Your task to perform on an android device: Go to wifi settings Image 0: 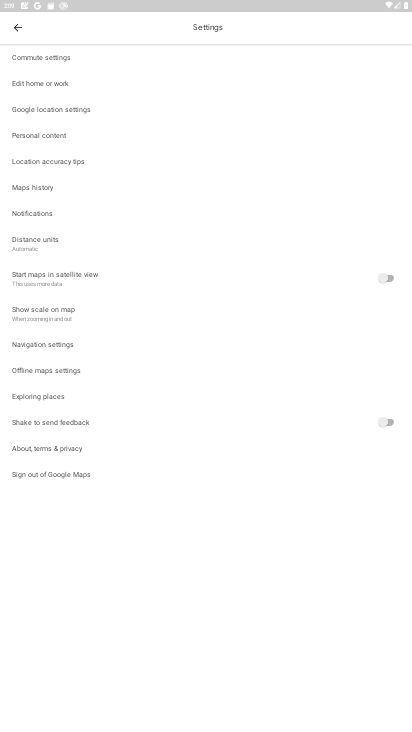
Step 0: press home button
Your task to perform on an android device: Go to wifi settings Image 1: 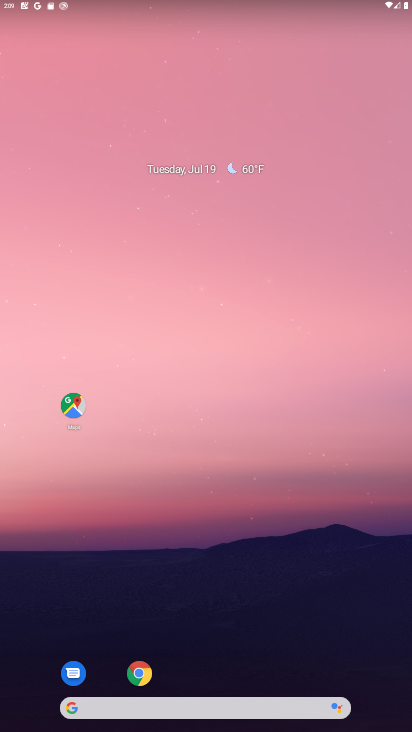
Step 1: drag from (150, 726) to (83, 127)
Your task to perform on an android device: Go to wifi settings Image 2: 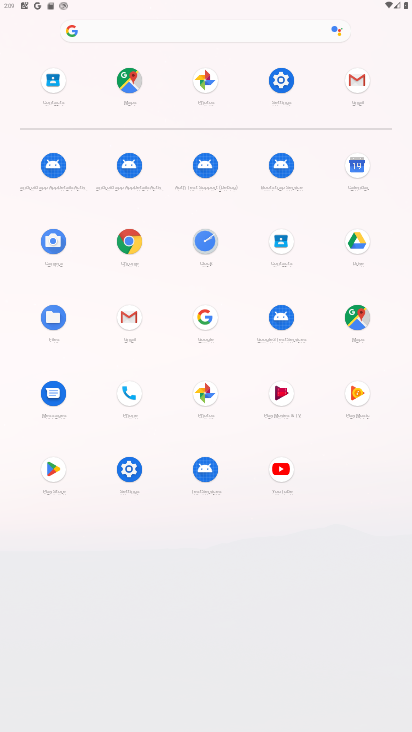
Step 2: click (279, 80)
Your task to perform on an android device: Go to wifi settings Image 3: 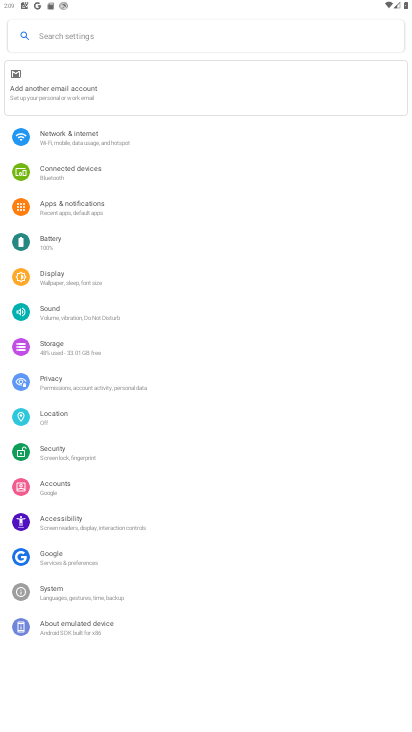
Step 3: click (88, 140)
Your task to perform on an android device: Go to wifi settings Image 4: 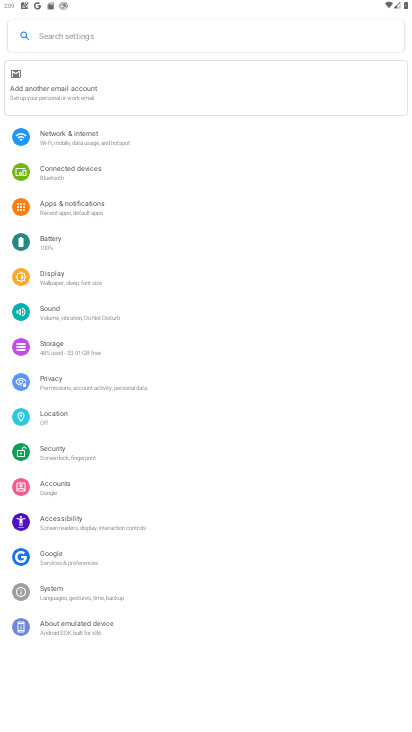
Step 4: click (88, 140)
Your task to perform on an android device: Go to wifi settings Image 5: 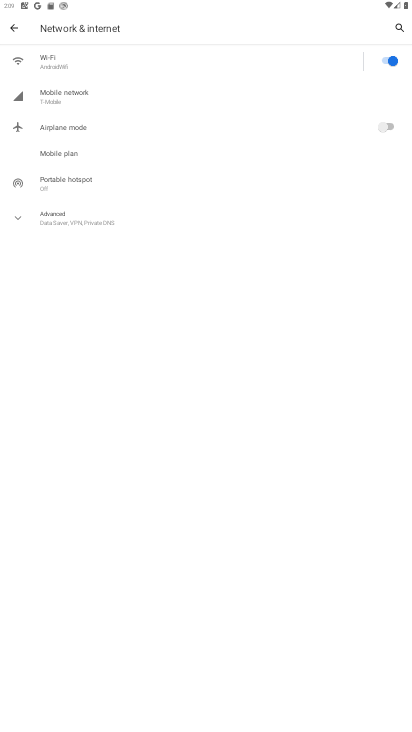
Step 5: click (124, 53)
Your task to perform on an android device: Go to wifi settings Image 6: 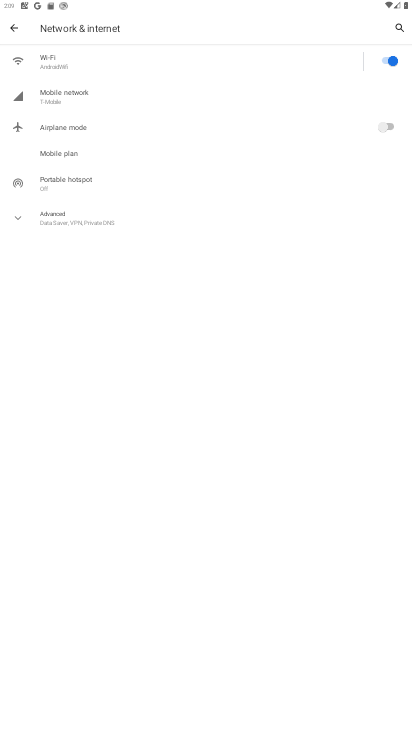
Step 6: click (124, 53)
Your task to perform on an android device: Go to wifi settings Image 7: 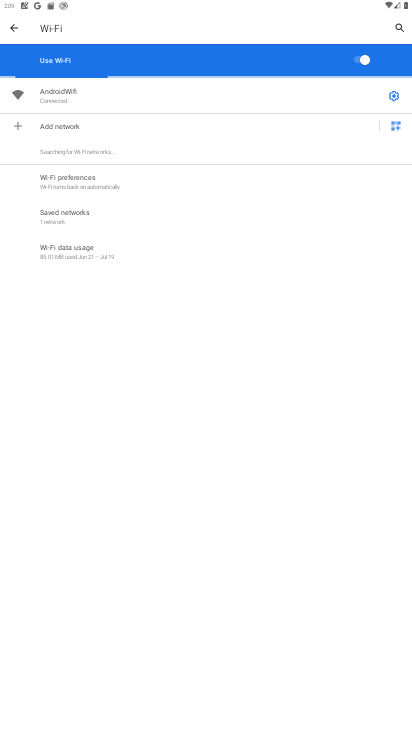
Step 7: click (392, 98)
Your task to perform on an android device: Go to wifi settings Image 8: 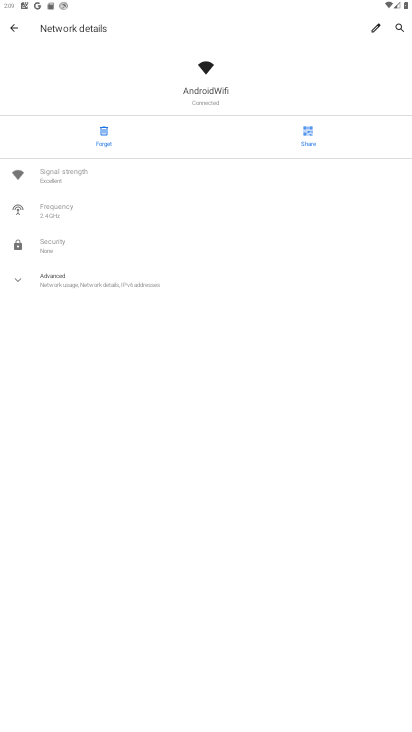
Step 8: task complete